Your task to perform on an android device: choose inbox layout in the gmail app Image 0: 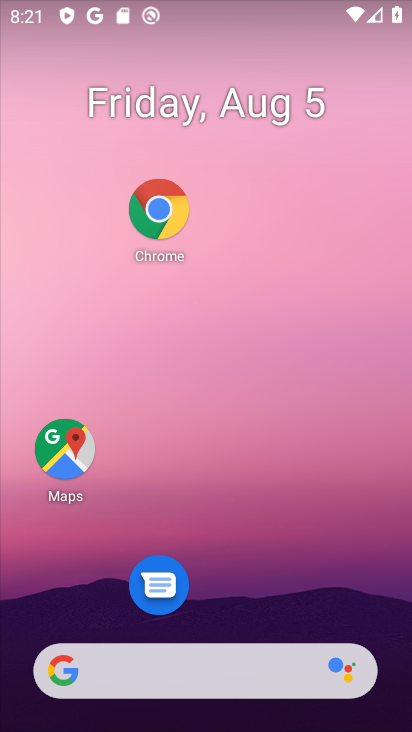
Step 0: drag from (229, 625) to (195, 94)
Your task to perform on an android device: choose inbox layout in the gmail app Image 1: 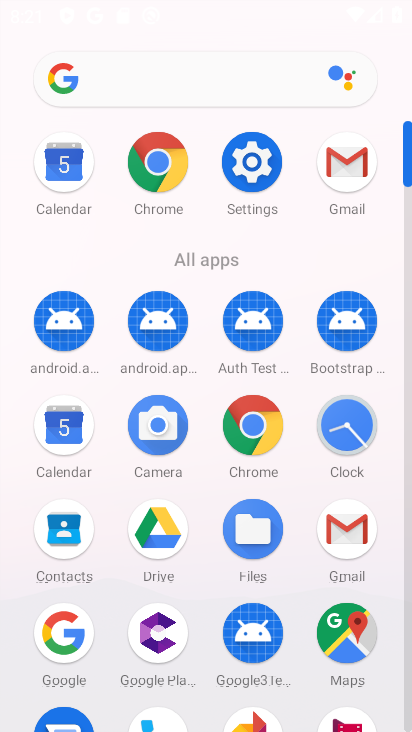
Step 1: click (358, 537)
Your task to perform on an android device: choose inbox layout in the gmail app Image 2: 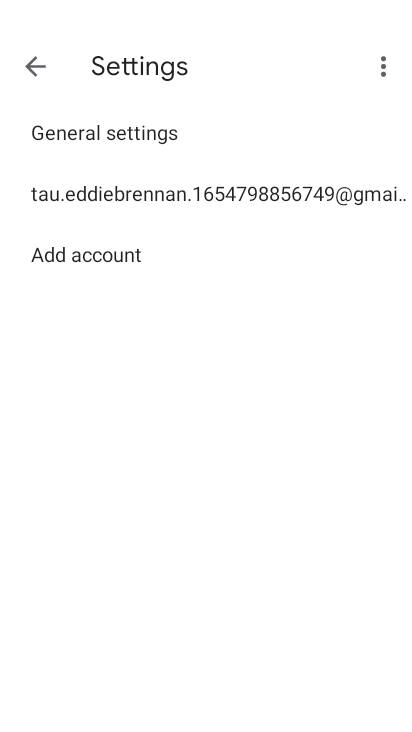
Step 2: click (85, 72)
Your task to perform on an android device: choose inbox layout in the gmail app Image 3: 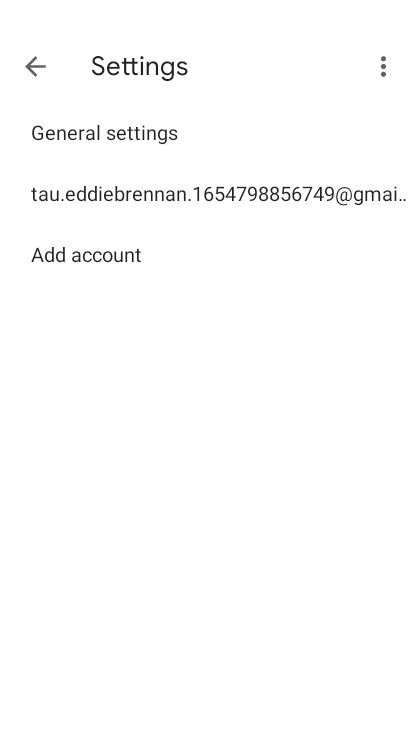
Step 3: click (31, 55)
Your task to perform on an android device: choose inbox layout in the gmail app Image 4: 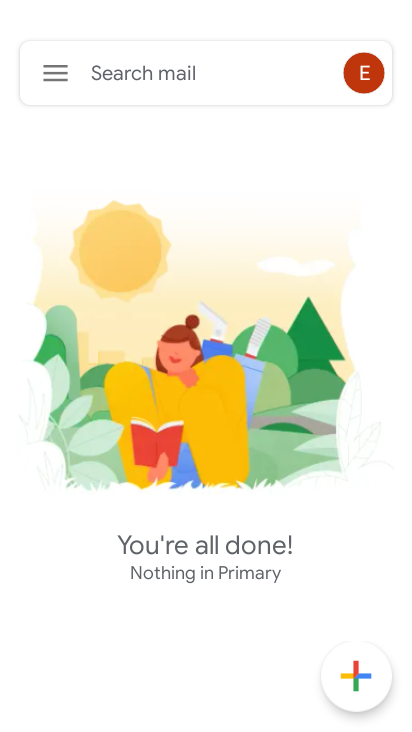
Step 4: click (43, 67)
Your task to perform on an android device: choose inbox layout in the gmail app Image 5: 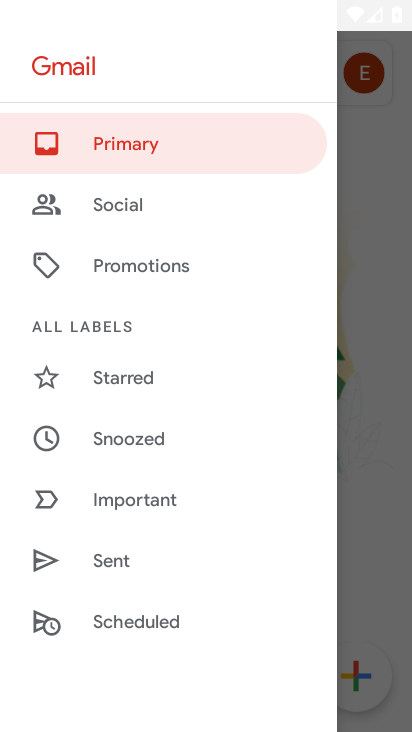
Step 5: drag from (164, 571) to (134, 25)
Your task to perform on an android device: choose inbox layout in the gmail app Image 6: 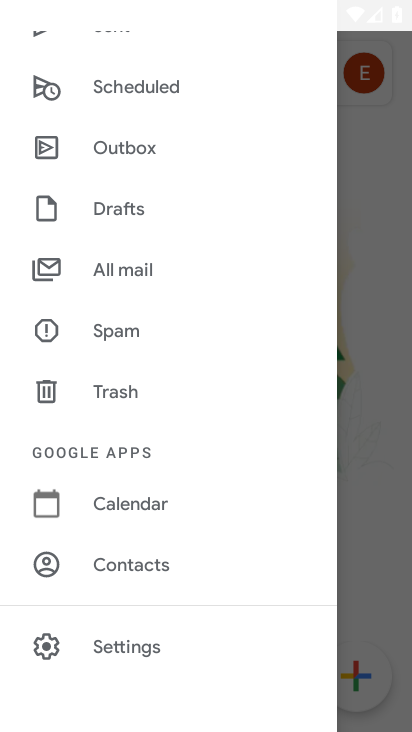
Step 6: click (116, 635)
Your task to perform on an android device: choose inbox layout in the gmail app Image 7: 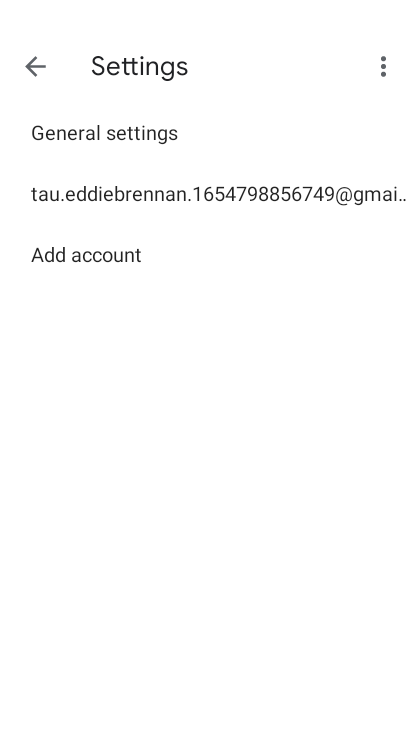
Step 7: click (89, 202)
Your task to perform on an android device: choose inbox layout in the gmail app Image 8: 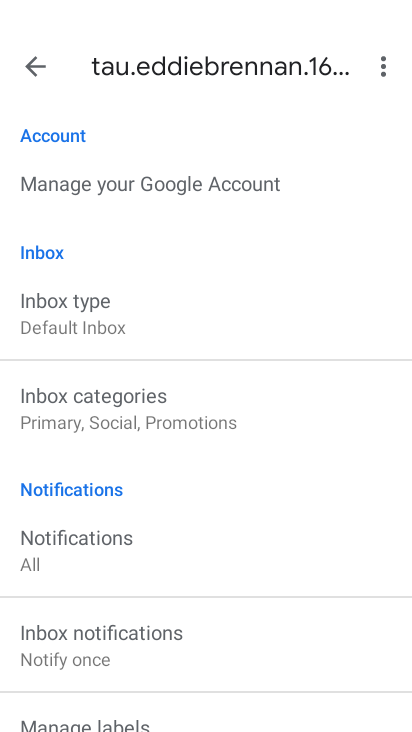
Step 8: click (91, 401)
Your task to perform on an android device: choose inbox layout in the gmail app Image 9: 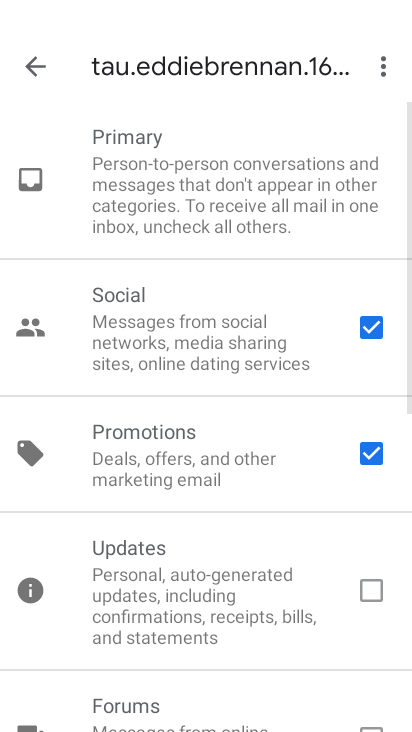
Step 9: click (39, 60)
Your task to perform on an android device: choose inbox layout in the gmail app Image 10: 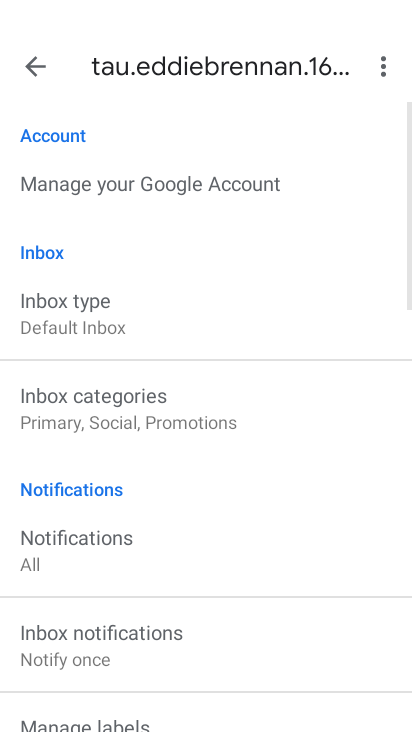
Step 10: click (80, 309)
Your task to perform on an android device: choose inbox layout in the gmail app Image 11: 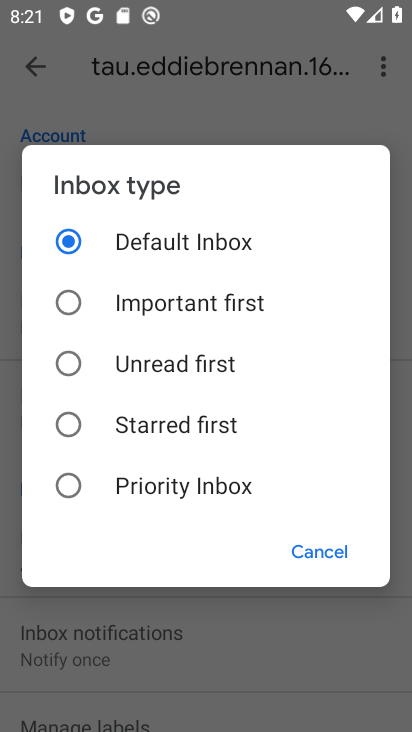
Step 11: click (102, 472)
Your task to perform on an android device: choose inbox layout in the gmail app Image 12: 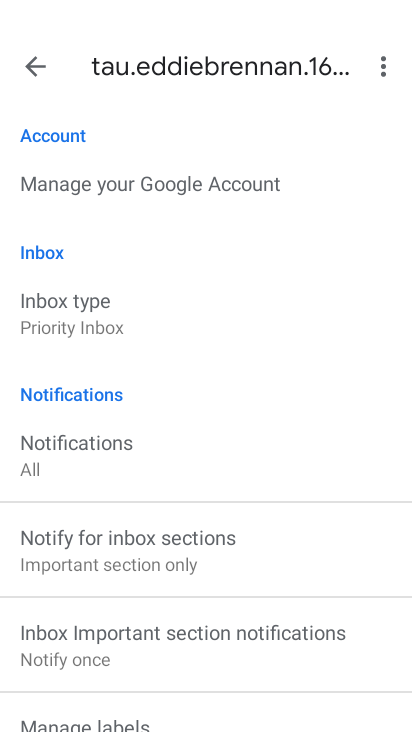
Step 12: click (28, 53)
Your task to perform on an android device: choose inbox layout in the gmail app Image 13: 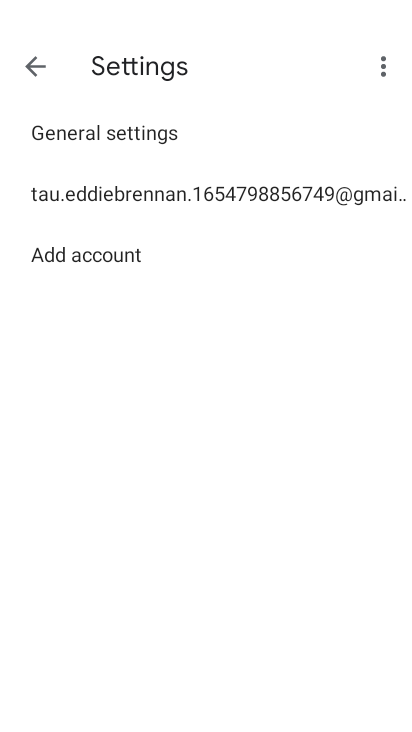
Step 13: click (28, 53)
Your task to perform on an android device: choose inbox layout in the gmail app Image 14: 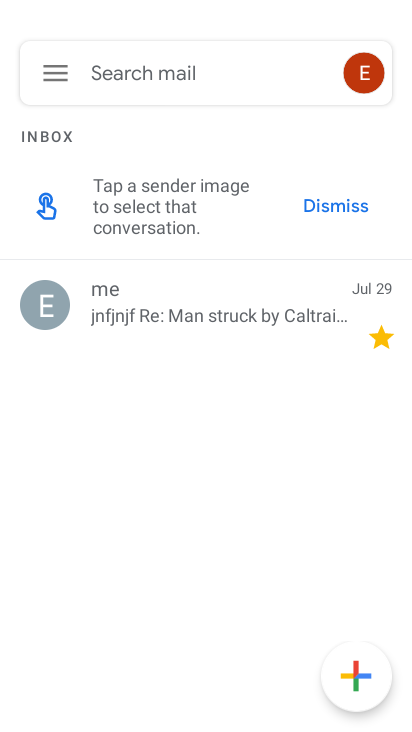
Step 14: task complete